Your task to perform on an android device: show emergency info Image 0: 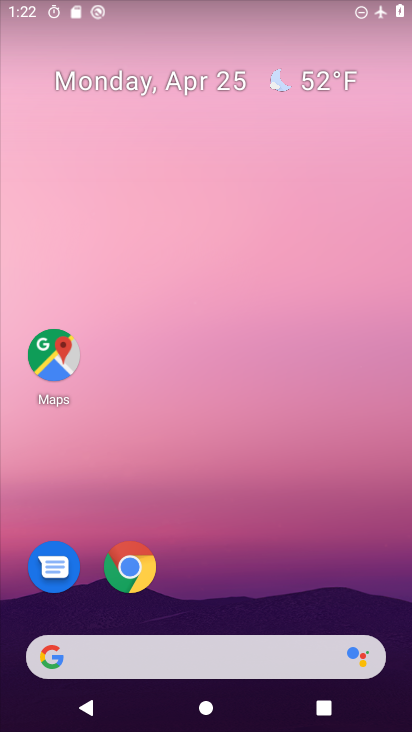
Step 0: drag from (304, 548) to (265, 0)
Your task to perform on an android device: show emergency info Image 1: 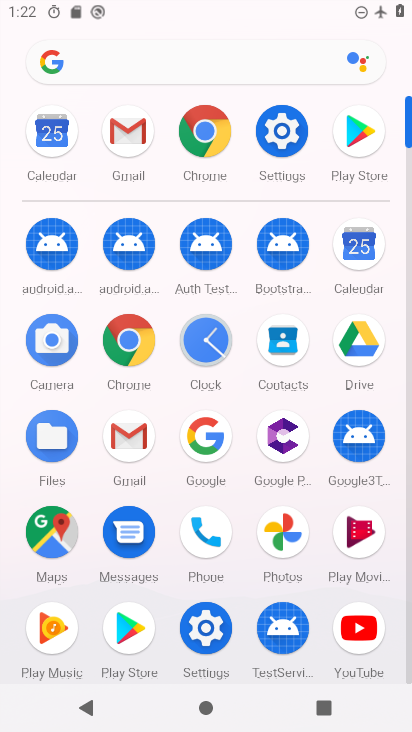
Step 1: click (284, 125)
Your task to perform on an android device: show emergency info Image 2: 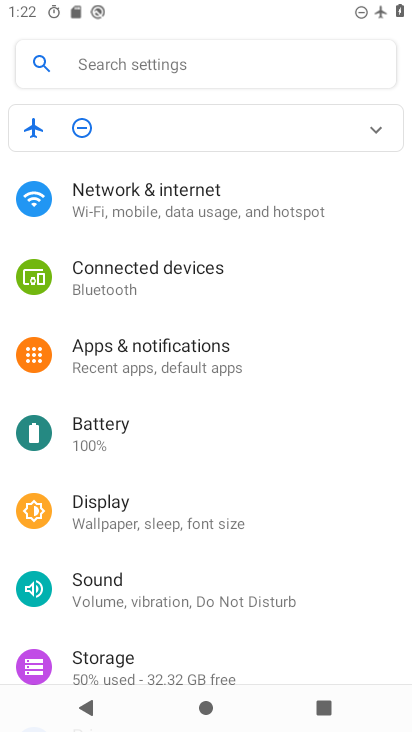
Step 2: drag from (221, 580) to (225, 135)
Your task to perform on an android device: show emergency info Image 3: 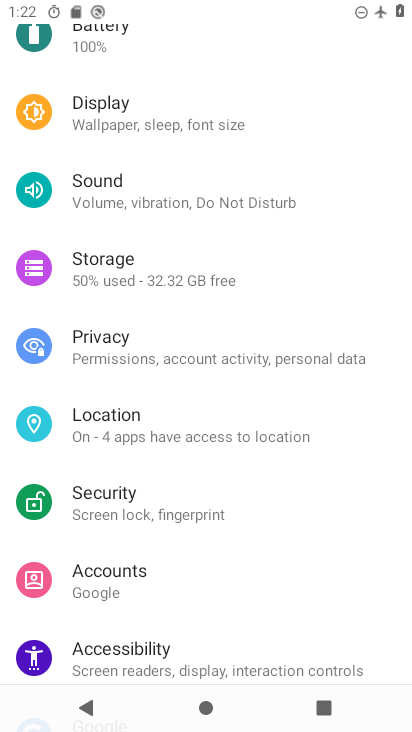
Step 3: drag from (232, 627) to (302, 246)
Your task to perform on an android device: show emergency info Image 4: 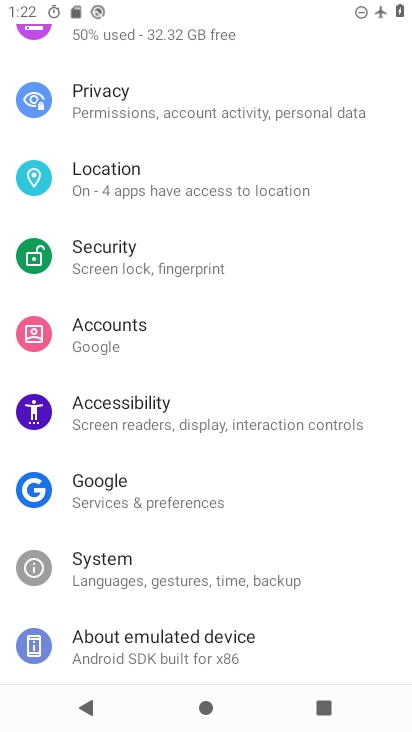
Step 4: click (153, 625)
Your task to perform on an android device: show emergency info Image 5: 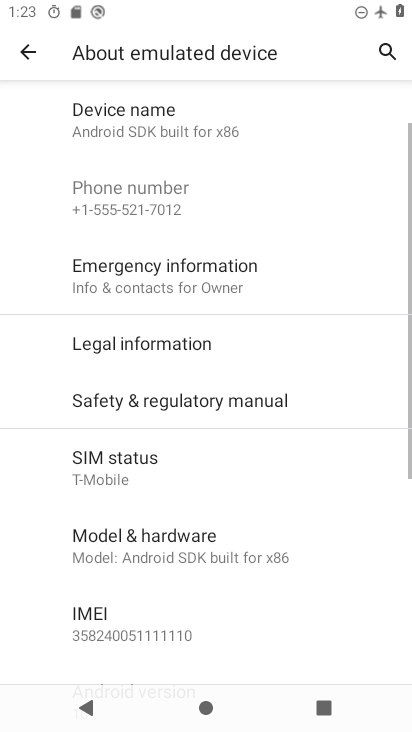
Step 5: click (238, 275)
Your task to perform on an android device: show emergency info Image 6: 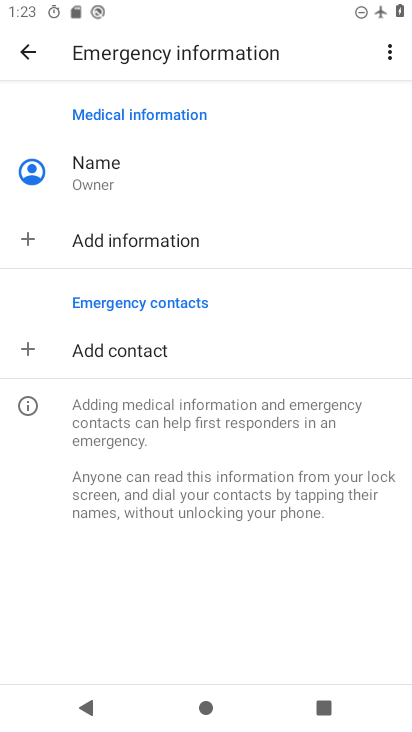
Step 6: task complete